Your task to perform on an android device: Open Yahoo.com Image 0: 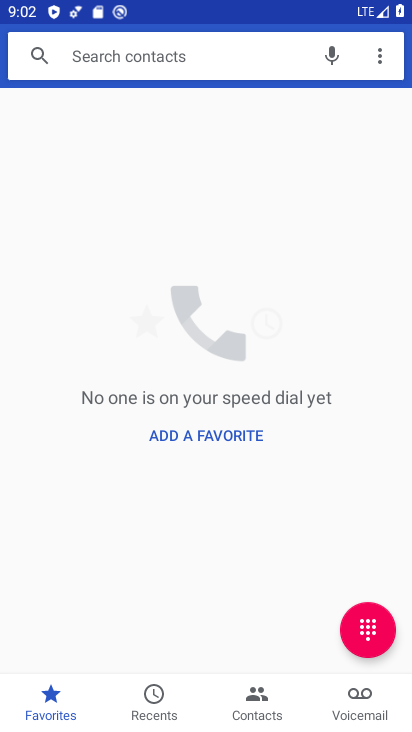
Step 0: press back button
Your task to perform on an android device: Open Yahoo.com Image 1: 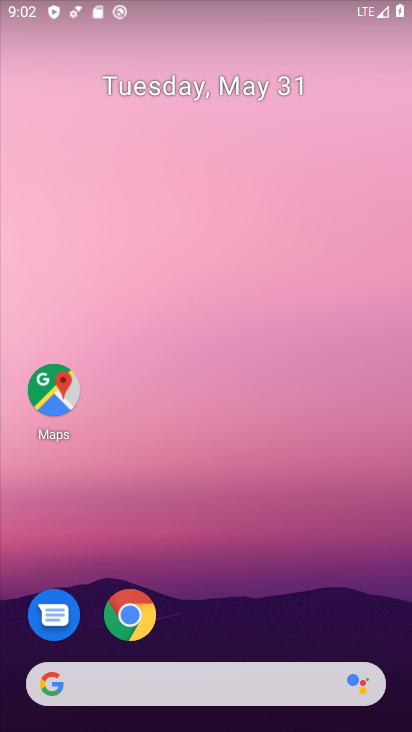
Step 1: click (139, 614)
Your task to perform on an android device: Open Yahoo.com Image 2: 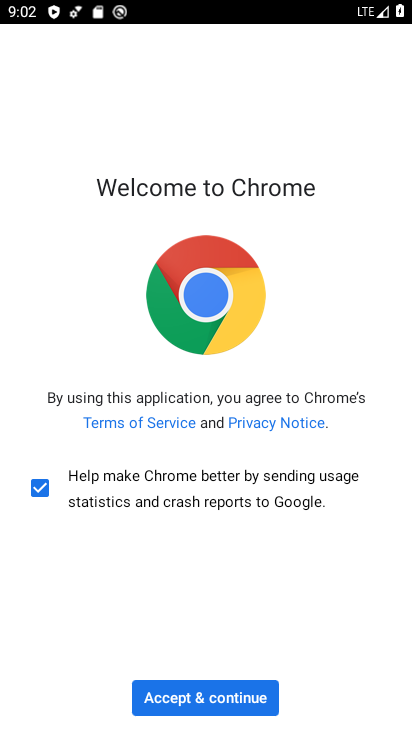
Step 2: click (189, 696)
Your task to perform on an android device: Open Yahoo.com Image 3: 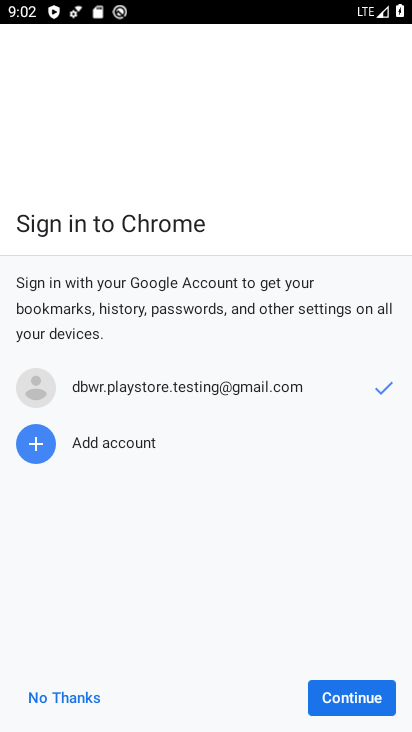
Step 3: click (339, 695)
Your task to perform on an android device: Open Yahoo.com Image 4: 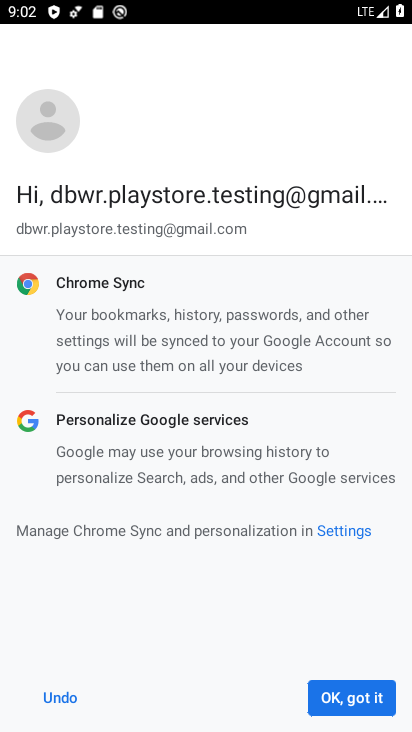
Step 4: click (334, 697)
Your task to perform on an android device: Open Yahoo.com Image 5: 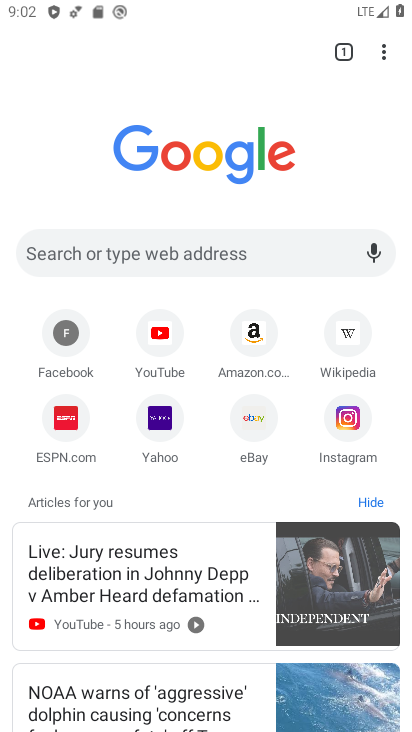
Step 5: click (170, 424)
Your task to perform on an android device: Open Yahoo.com Image 6: 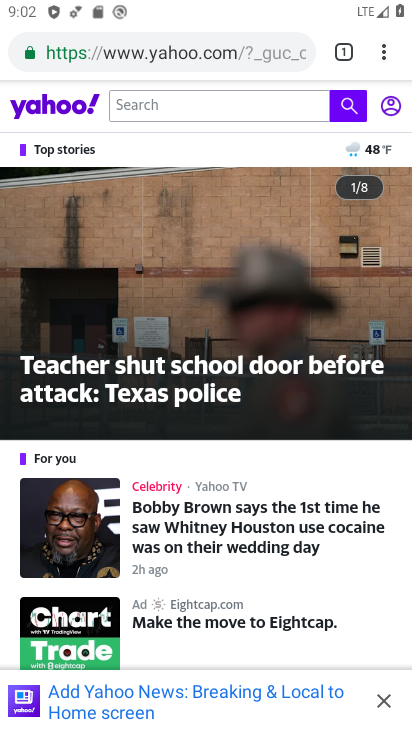
Step 6: task complete